Your task to perform on an android device: Open ESPN.com Image 0: 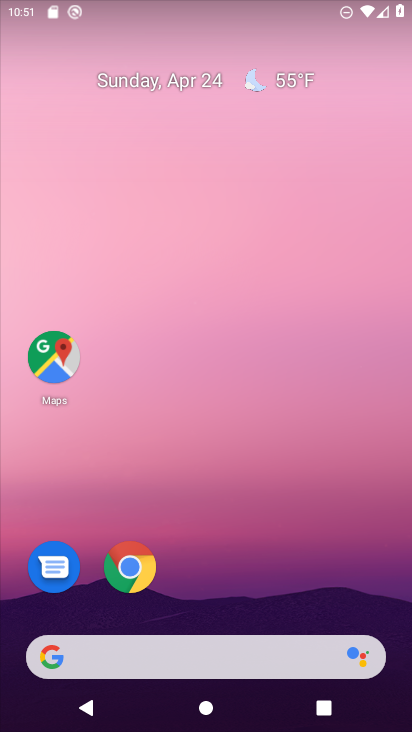
Step 0: click (132, 560)
Your task to perform on an android device: Open ESPN.com Image 1: 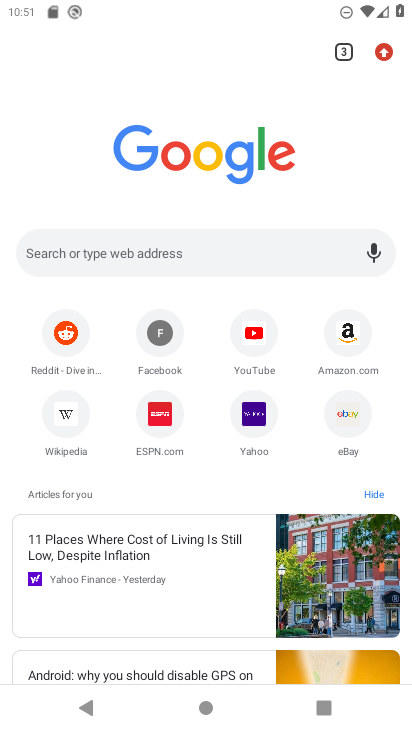
Step 1: type "ESPN.com"
Your task to perform on an android device: Open ESPN.com Image 2: 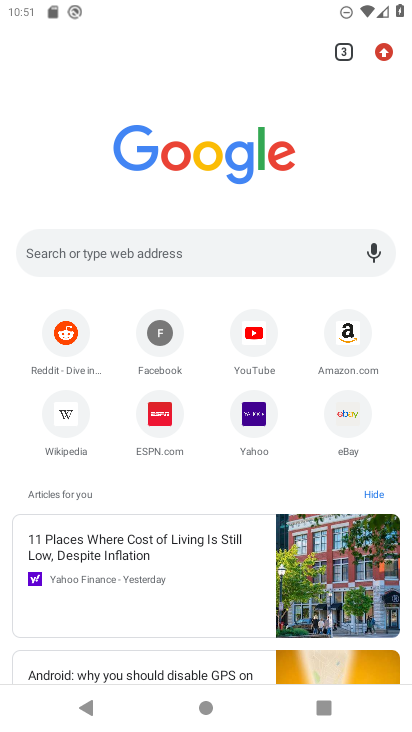
Step 2: click (143, 257)
Your task to perform on an android device: Open ESPN.com Image 3: 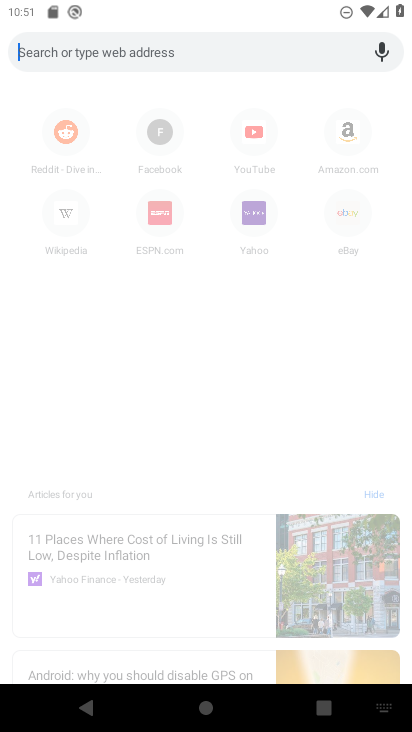
Step 3: type "ESPN.com"
Your task to perform on an android device: Open ESPN.com Image 4: 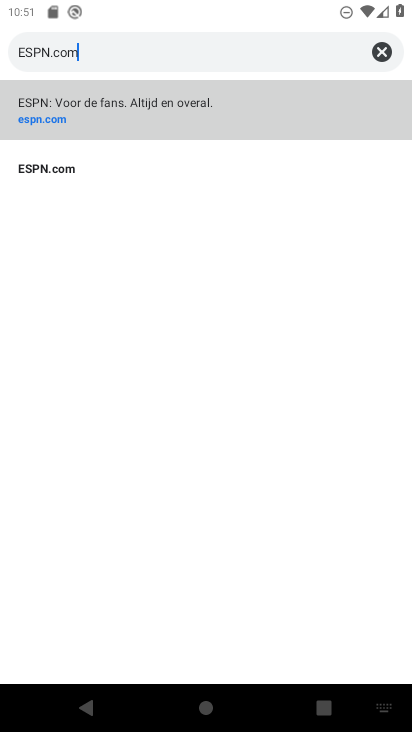
Step 4: click (38, 156)
Your task to perform on an android device: Open ESPN.com Image 5: 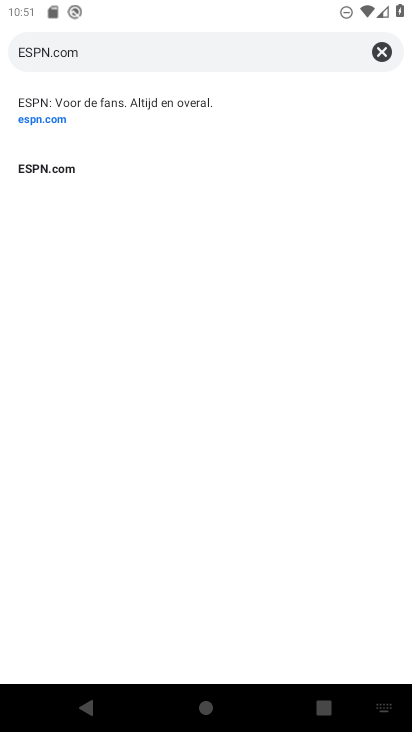
Step 5: click (41, 164)
Your task to perform on an android device: Open ESPN.com Image 6: 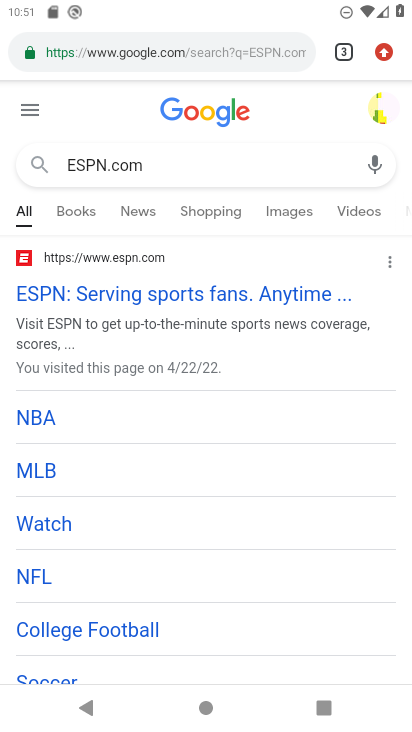
Step 6: task complete